Your task to perform on an android device: search for starred emails in the gmail app Image 0: 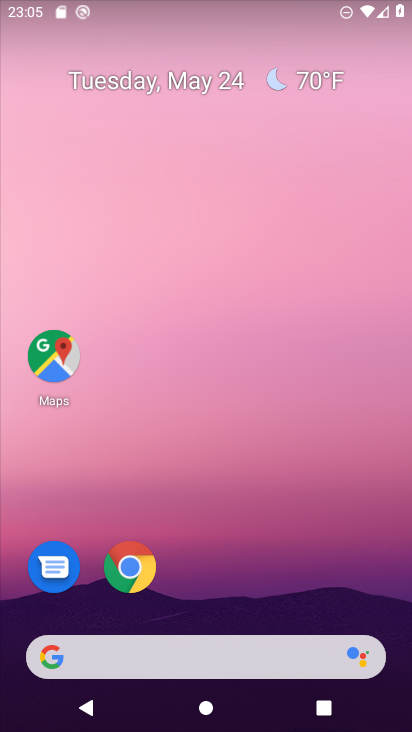
Step 0: drag from (277, 539) to (131, 44)
Your task to perform on an android device: search for starred emails in the gmail app Image 1: 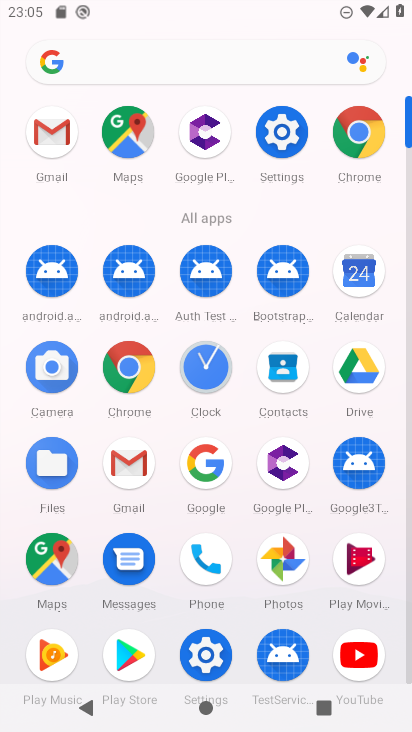
Step 1: click (56, 147)
Your task to perform on an android device: search for starred emails in the gmail app Image 2: 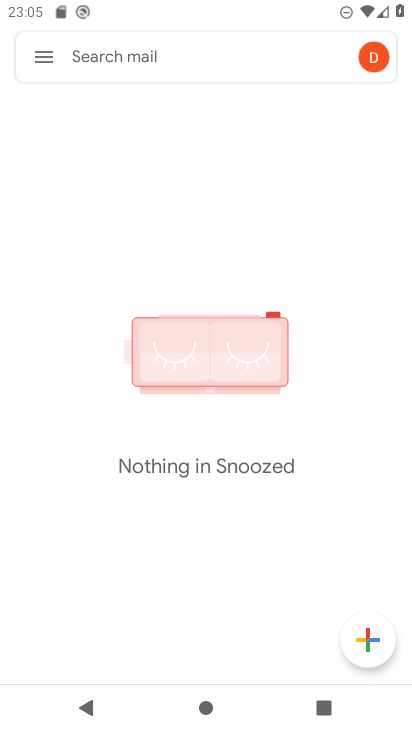
Step 2: click (113, 53)
Your task to perform on an android device: search for starred emails in the gmail app Image 3: 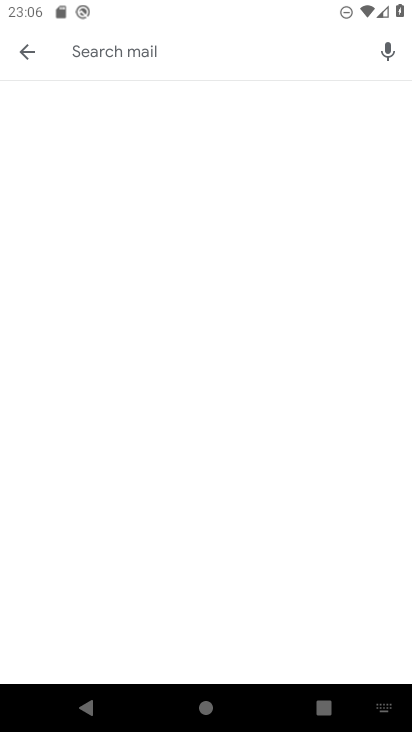
Step 3: type "starred"
Your task to perform on an android device: search for starred emails in the gmail app Image 4: 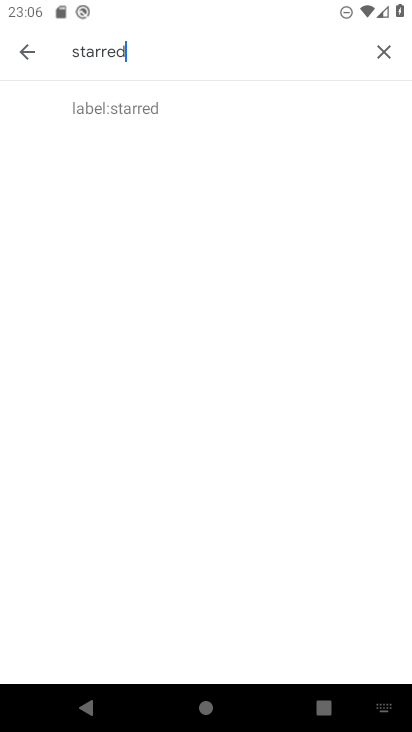
Step 4: click (165, 97)
Your task to perform on an android device: search for starred emails in the gmail app Image 5: 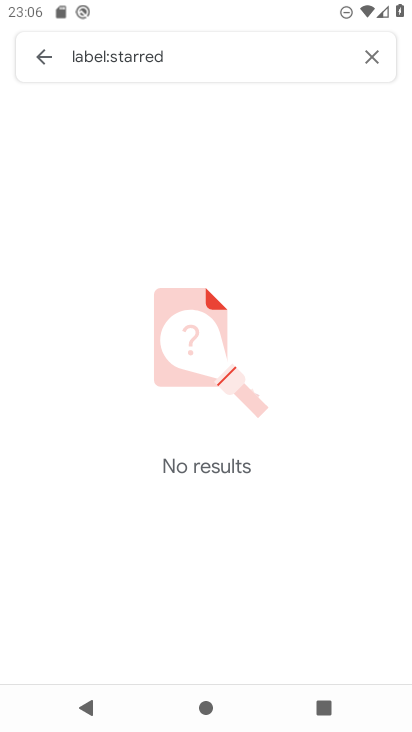
Step 5: task complete